Your task to perform on an android device: Go to sound settings Image 0: 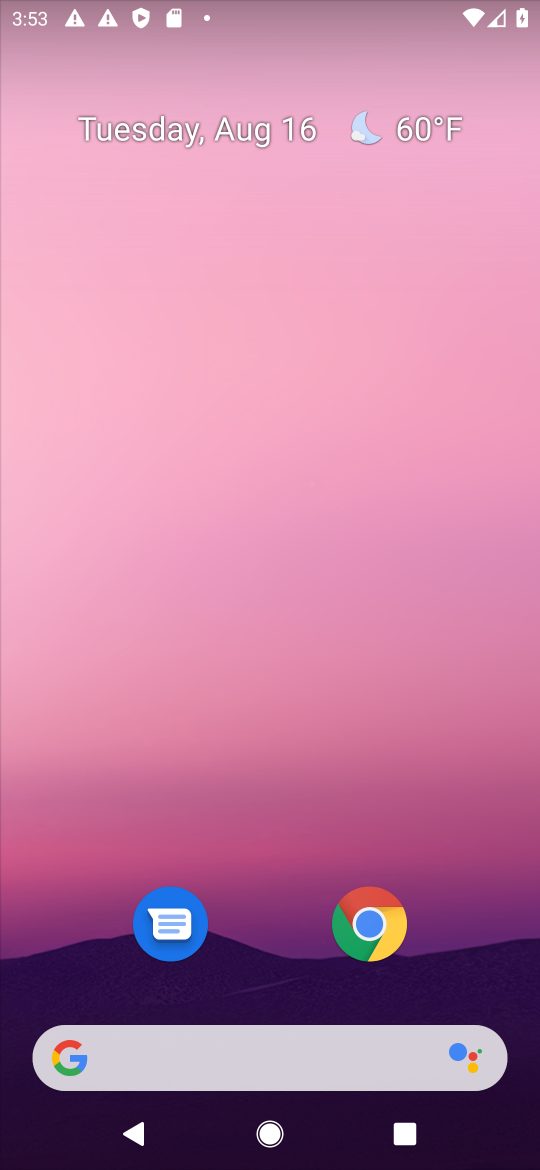
Step 0: drag from (270, 1000) to (341, 199)
Your task to perform on an android device: Go to sound settings Image 1: 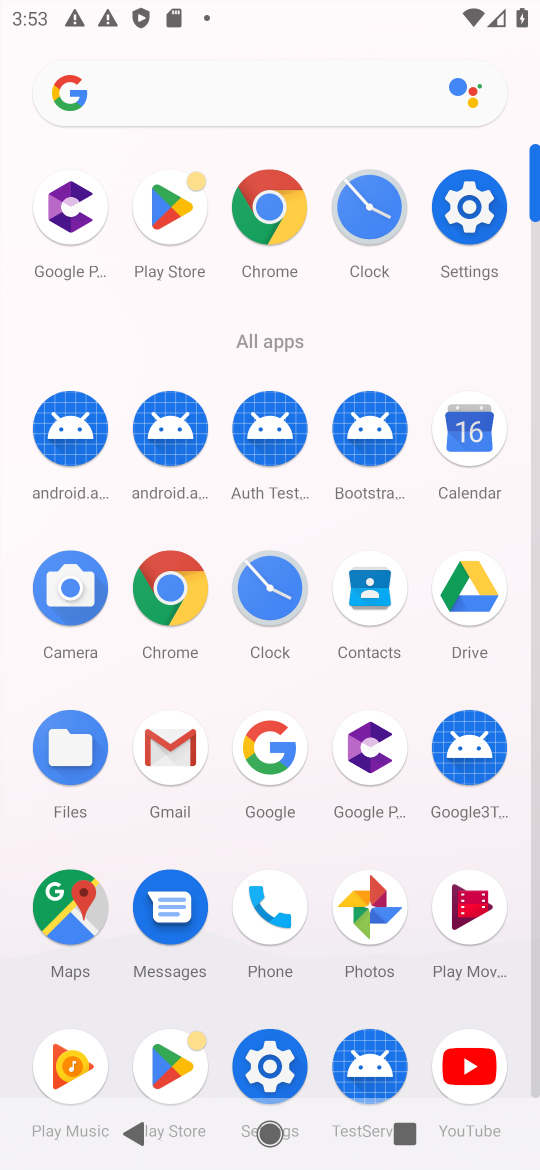
Step 1: click (474, 205)
Your task to perform on an android device: Go to sound settings Image 2: 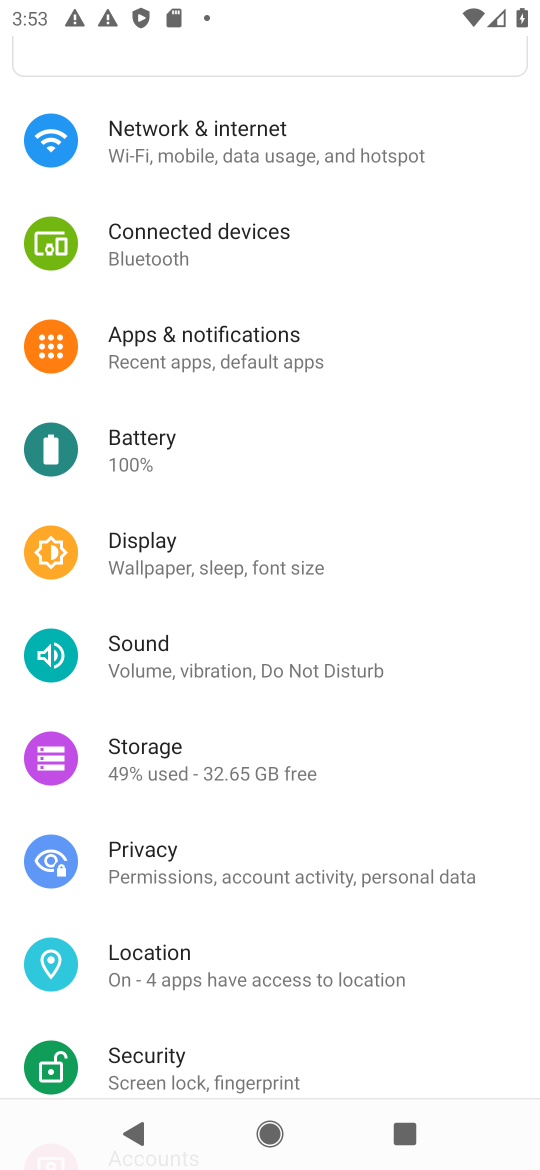
Step 2: click (136, 637)
Your task to perform on an android device: Go to sound settings Image 3: 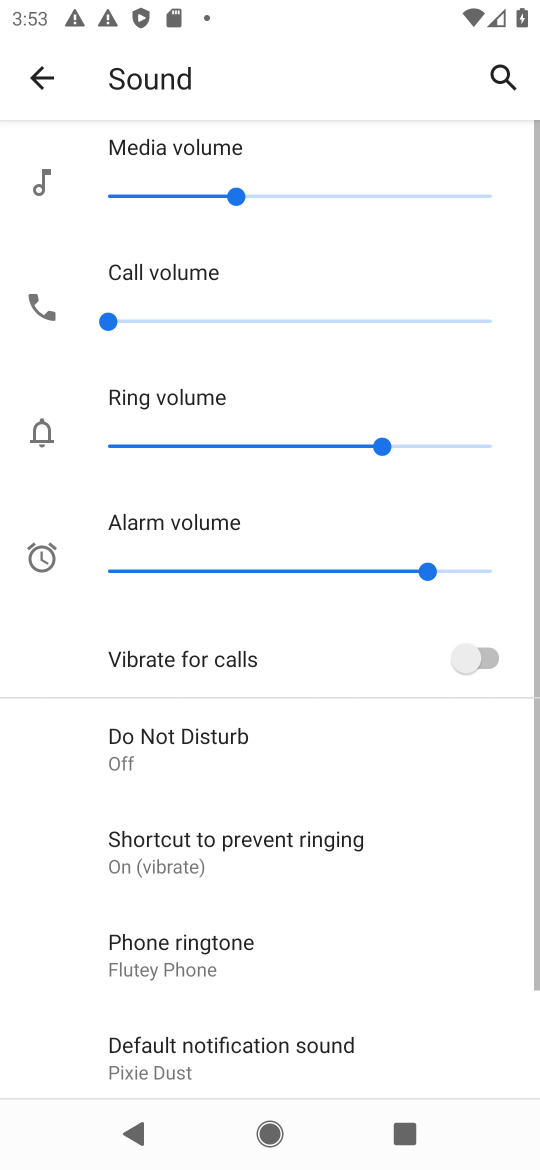
Step 3: task complete